Your task to perform on an android device: Open Google Maps Image 0: 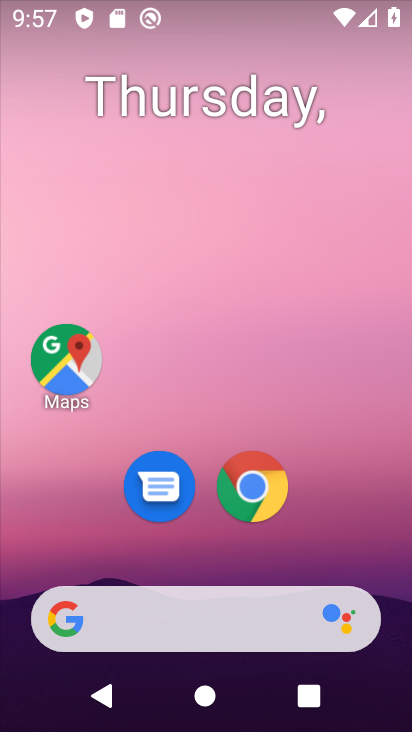
Step 0: click (65, 345)
Your task to perform on an android device: Open Google Maps Image 1: 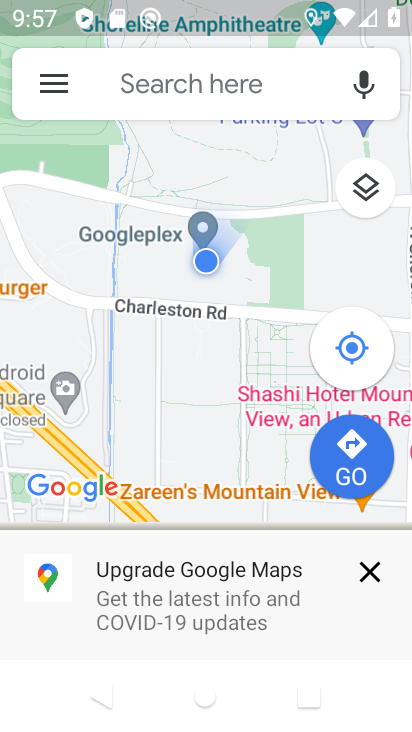
Step 1: task complete